Your task to perform on an android device: delete browsing data in the chrome app Image 0: 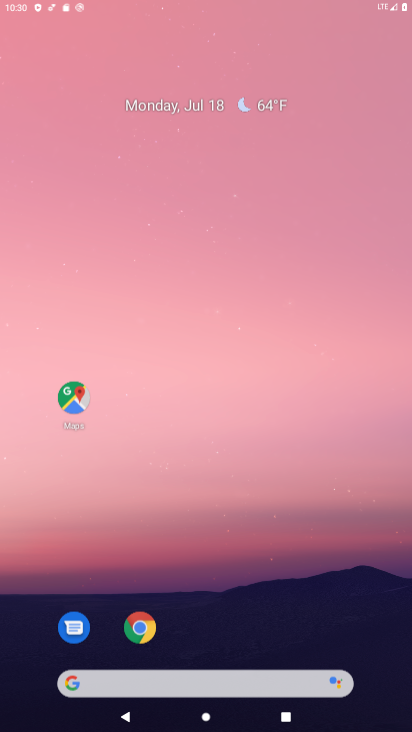
Step 0: drag from (292, 376) to (248, 1)
Your task to perform on an android device: delete browsing data in the chrome app Image 1: 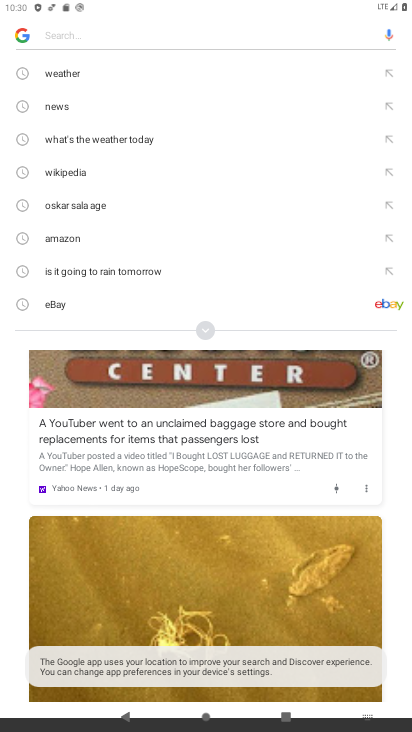
Step 1: press home button
Your task to perform on an android device: delete browsing data in the chrome app Image 2: 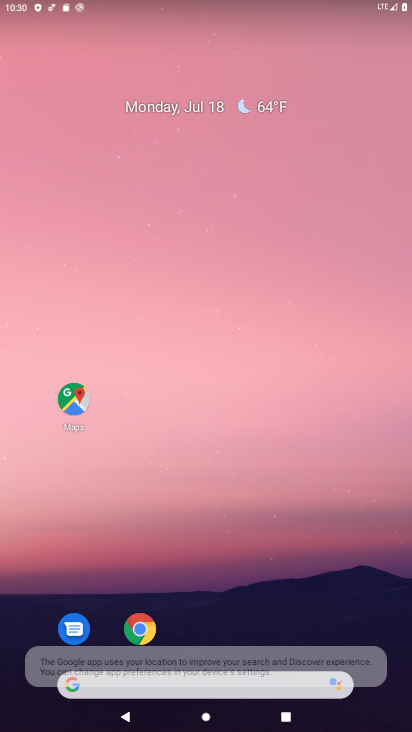
Step 2: click (143, 635)
Your task to perform on an android device: delete browsing data in the chrome app Image 3: 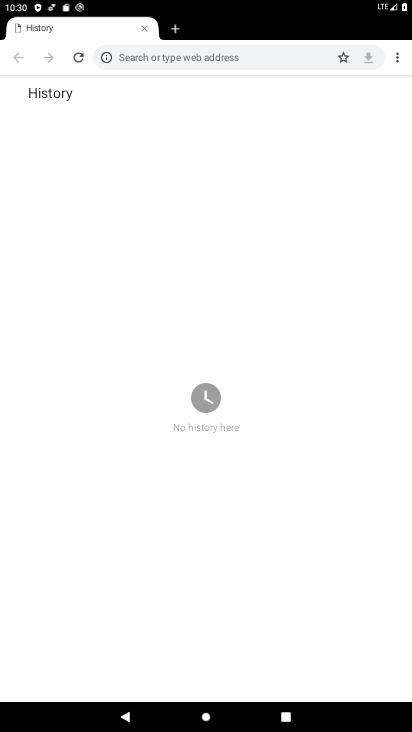
Step 3: task complete